Your task to perform on an android device: Open the play store Image 0: 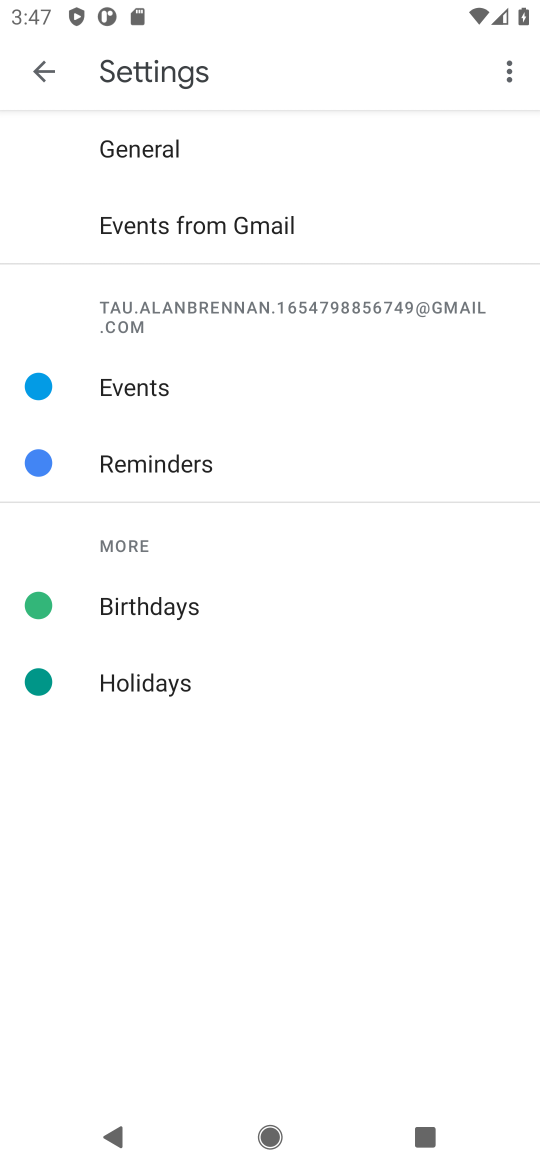
Step 0: press home button
Your task to perform on an android device: Open the play store Image 1: 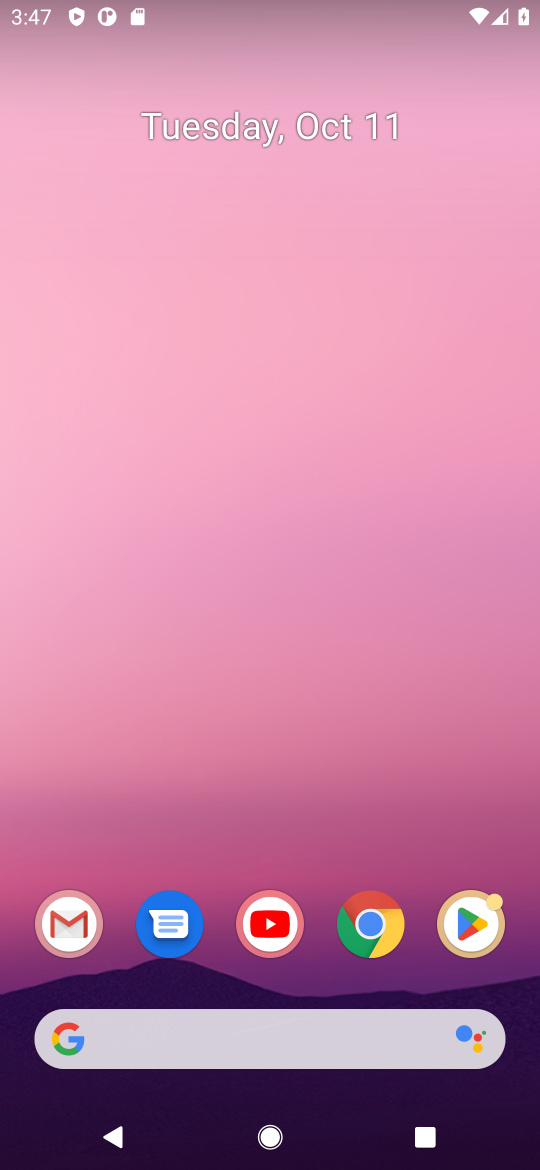
Step 1: drag from (417, 1002) to (390, 70)
Your task to perform on an android device: Open the play store Image 2: 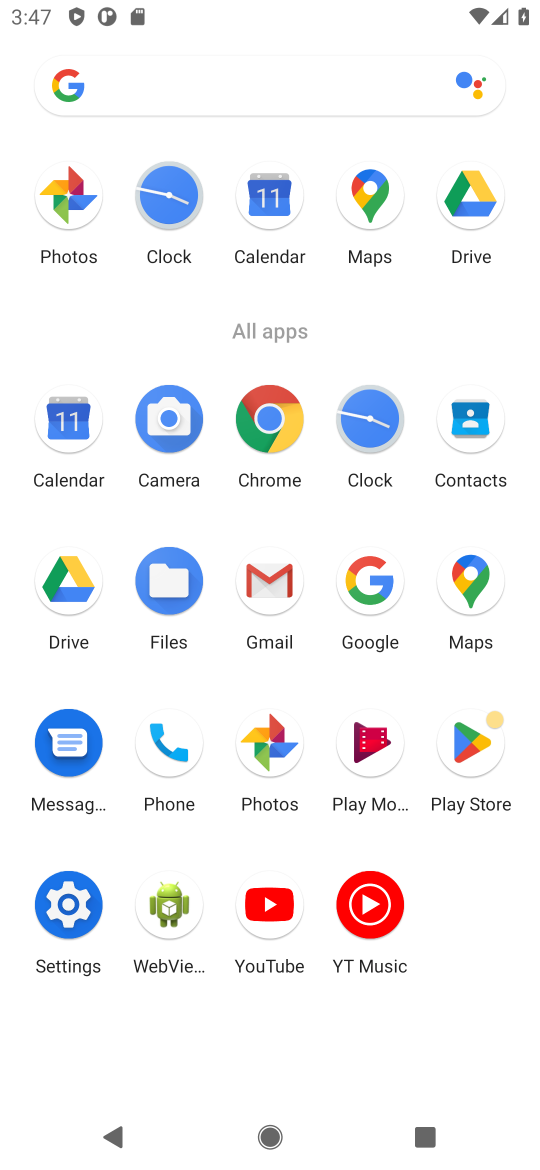
Step 2: click (471, 739)
Your task to perform on an android device: Open the play store Image 3: 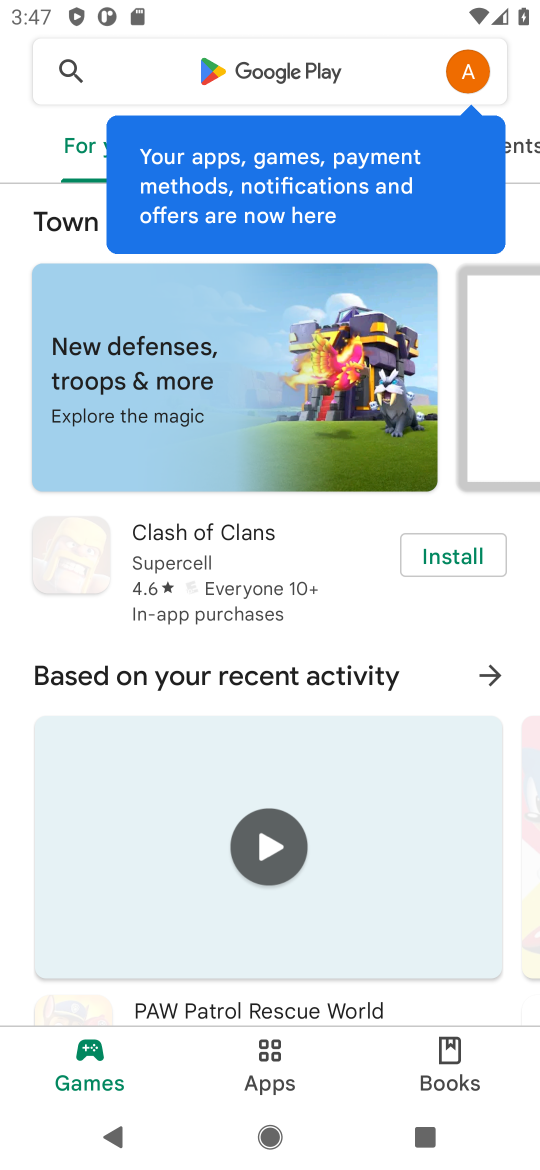
Step 3: click (297, 90)
Your task to perform on an android device: Open the play store Image 4: 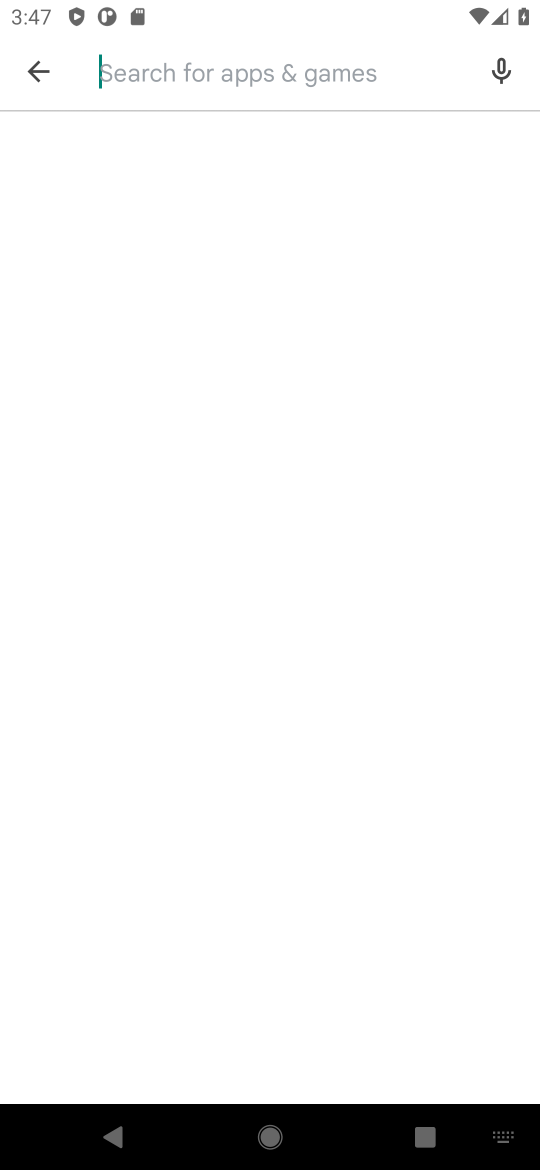
Step 4: task complete